Your task to perform on an android device: Open Android settings Image 0: 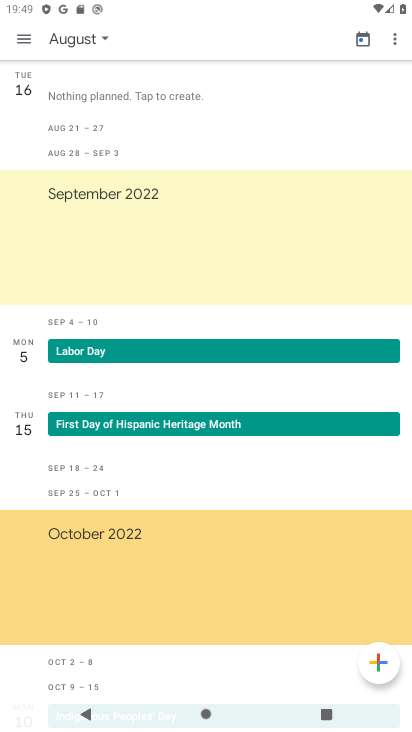
Step 0: press home button
Your task to perform on an android device: Open Android settings Image 1: 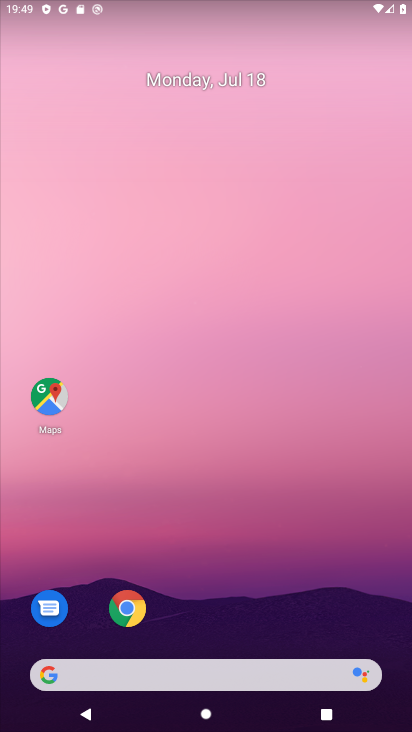
Step 1: drag from (194, 641) to (195, 105)
Your task to perform on an android device: Open Android settings Image 2: 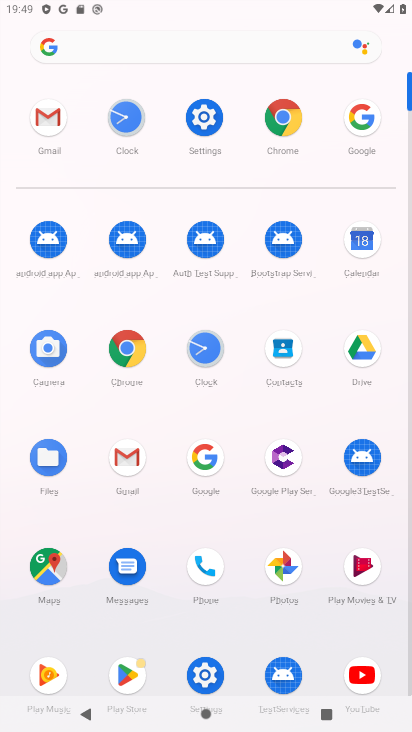
Step 2: click (208, 115)
Your task to perform on an android device: Open Android settings Image 3: 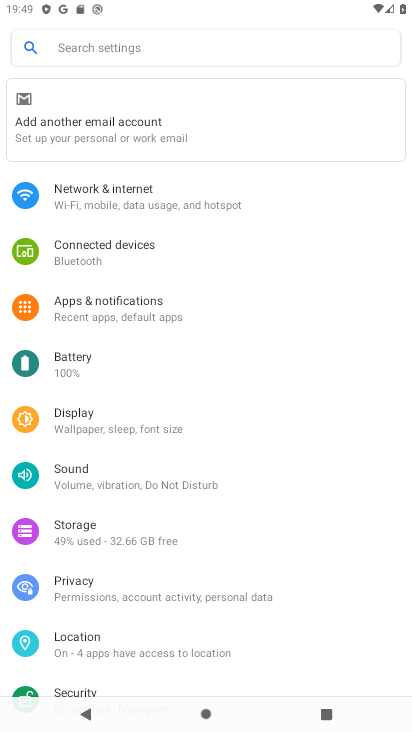
Step 3: task complete